Your task to perform on an android device: toggle show notifications on the lock screen Image 0: 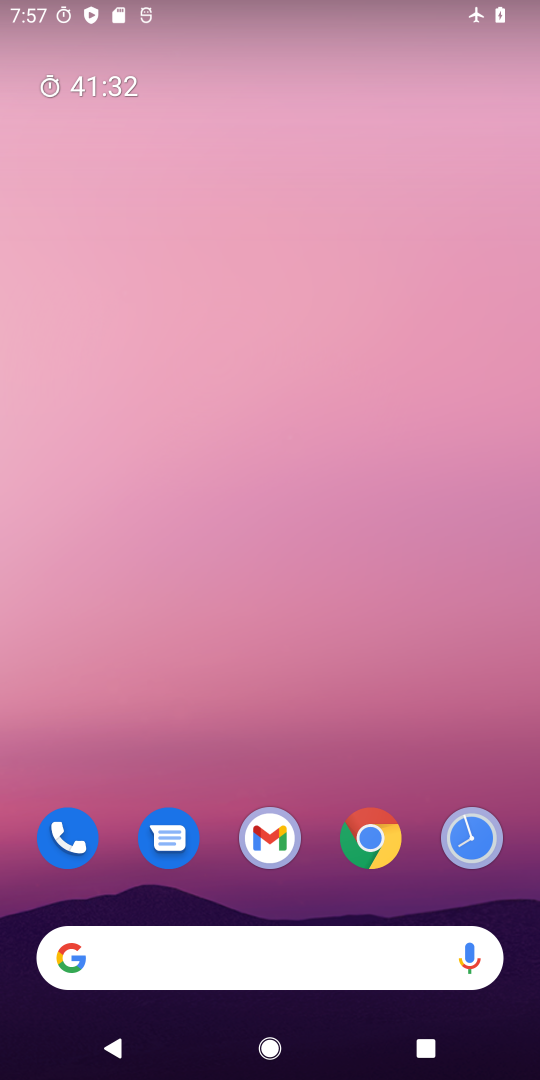
Step 0: press home button
Your task to perform on an android device: toggle show notifications on the lock screen Image 1: 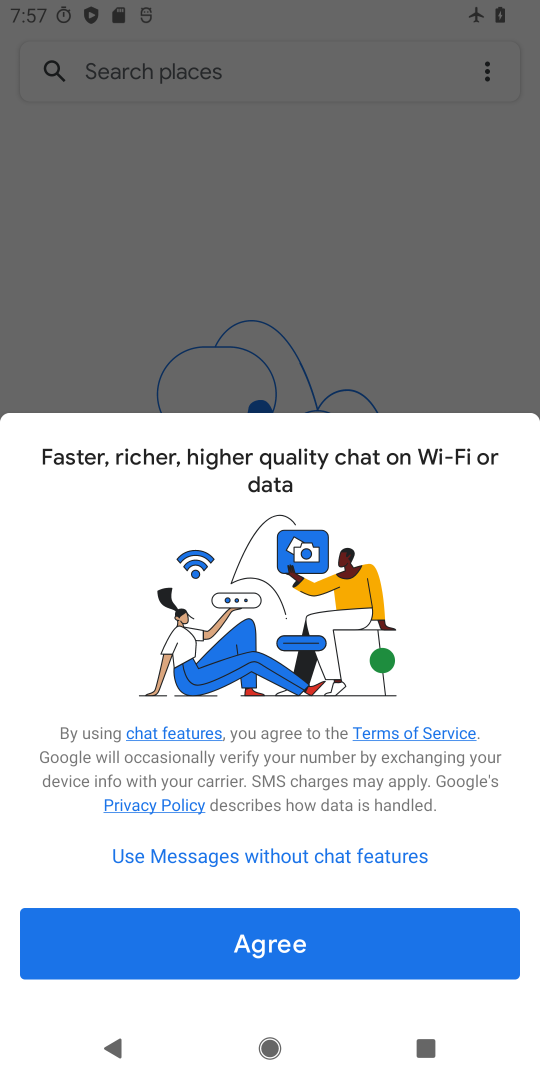
Step 1: press home button
Your task to perform on an android device: toggle show notifications on the lock screen Image 2: 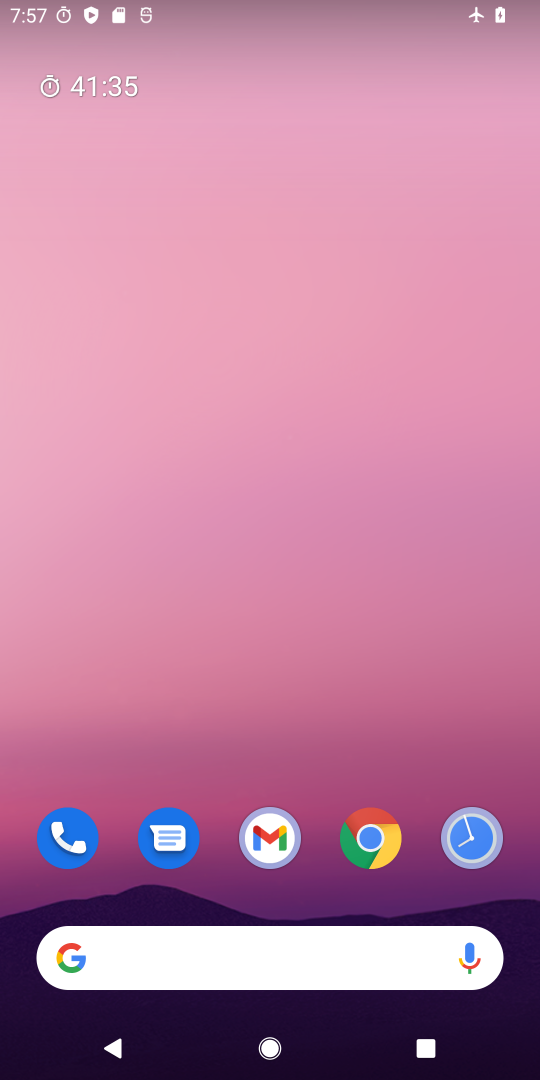
Step 2: drag from (390, 773) to (539, 244)
Your task to perform on an android device: toggle show notifications on the lock screen Image 3: 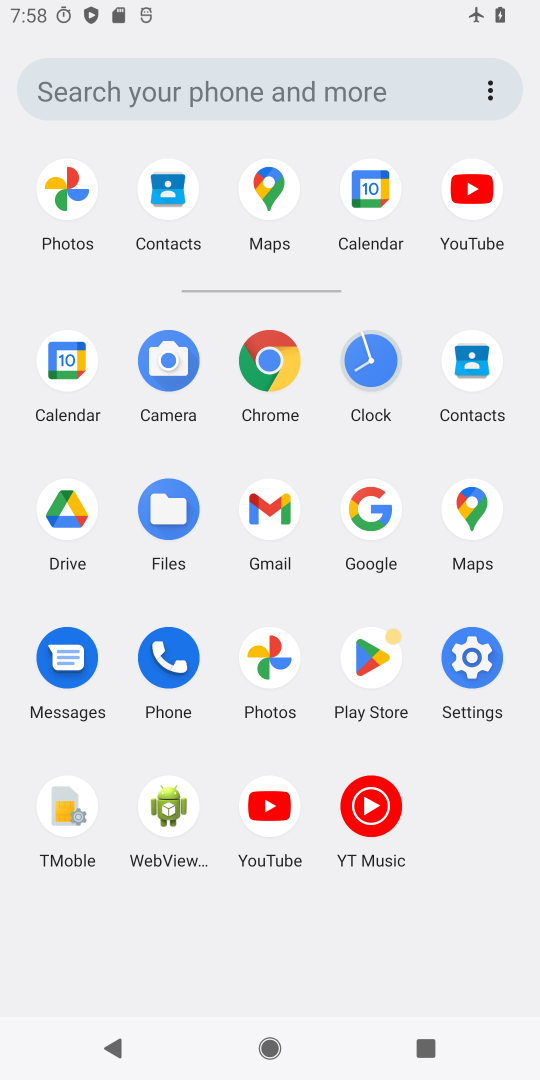
Step 3: click (454, 654)
Your task to perform on an android device: toggle show notifications on the lock screen Image 4: 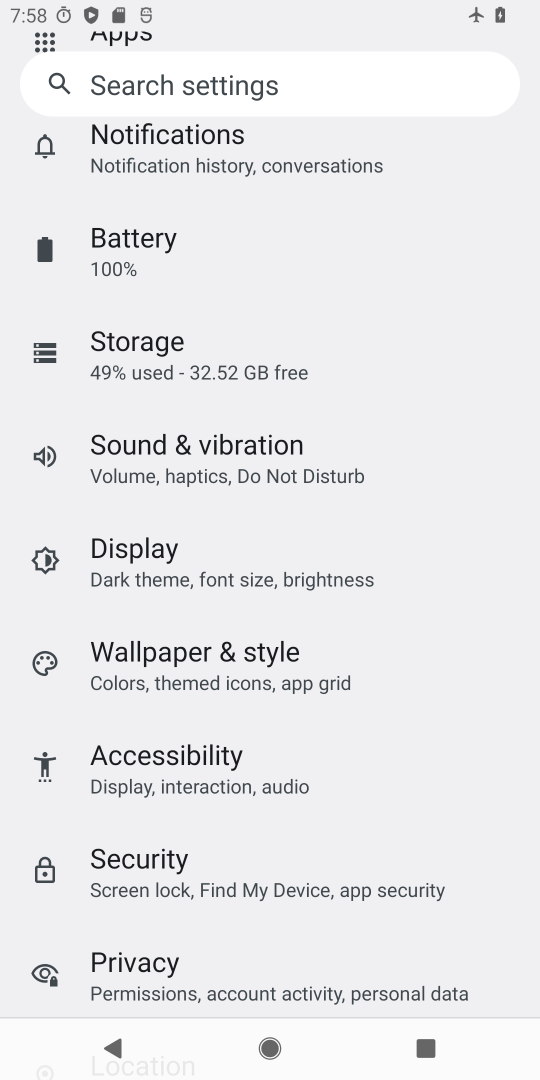
Step 4: click (134, 160)
Your task to perform on an android device: toggle show notifications on the lock screen Image 5: 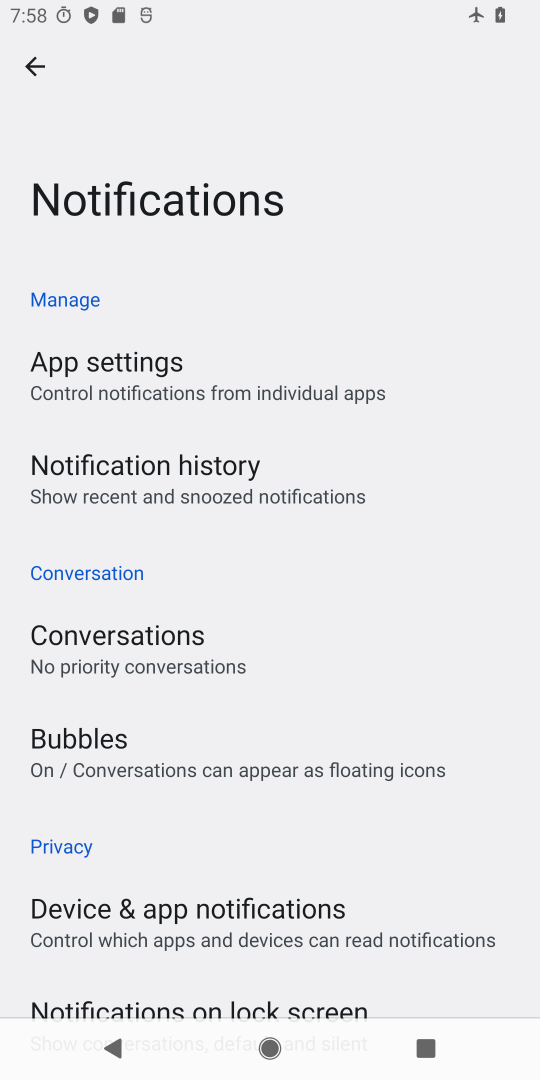
Step 5: drag from (193, 716) to (172, 396)
Your task to perform on an android device: toggle show notifications on the lock screen Image 6: 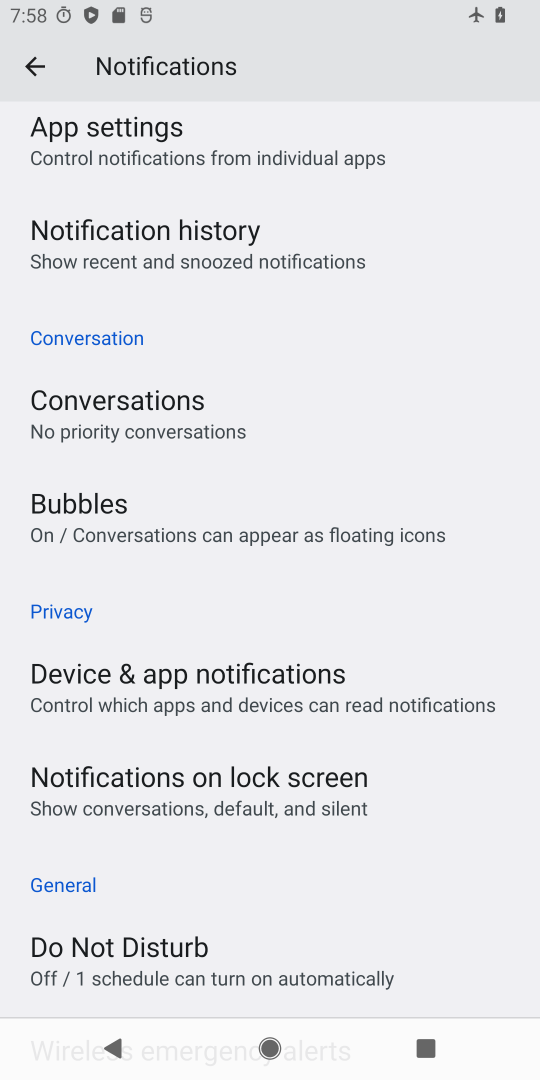
Step 6: click (185, 789)
Your task to perform on an android device: toggle show notifications on the lock screen Image 7: 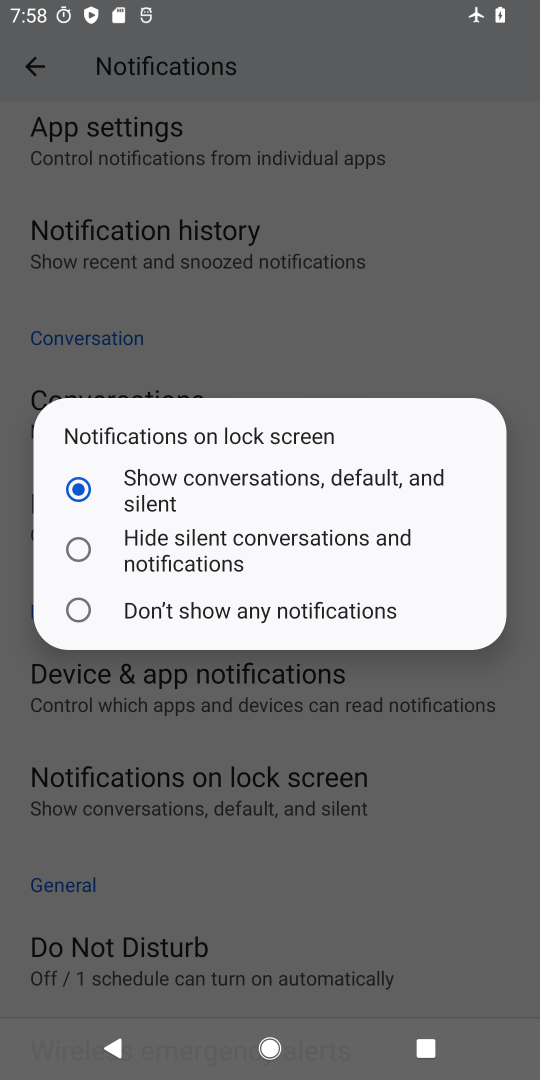
Step 7: click (408, 479)
Your task to perform on an android device: toggle show notifications on the lock screen Image 8: 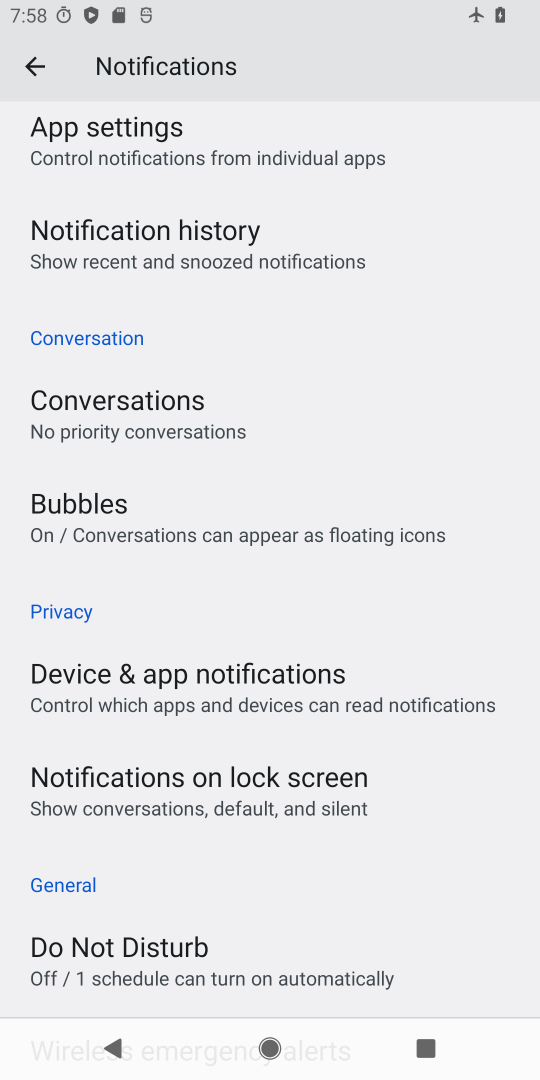
Step 8: task complete